Your task to perform on an android device: set default search engine in the chrome app Image 0: 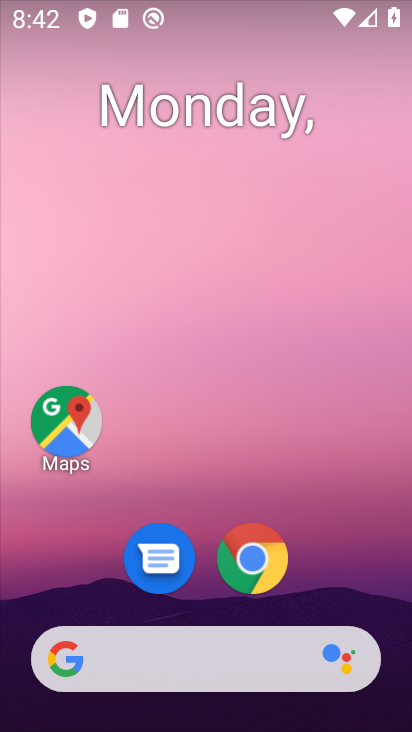
Step 0: click (261, 555)
Your task to perform on an android device: set default search engine in the chrome app Image 1: 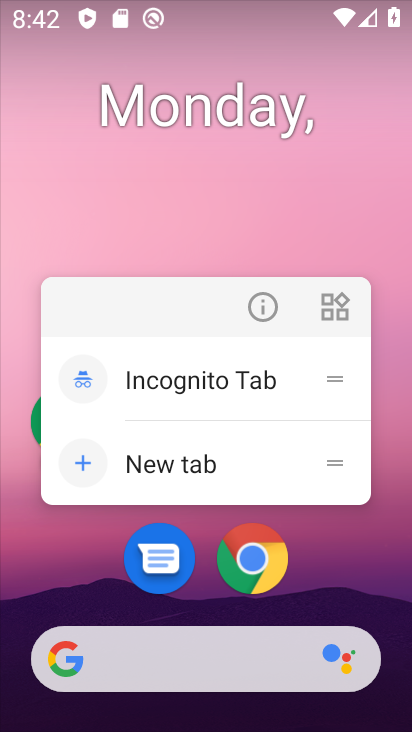
Step 1: click (255, 557)
Your task to perform on an android device: set default search engine in the chrome app Image 2: 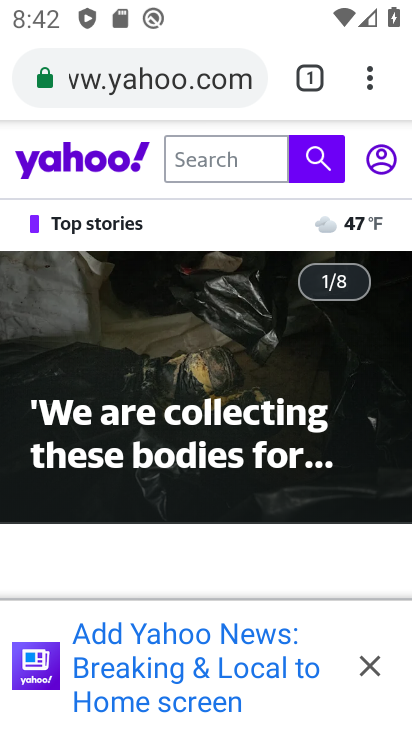
Step 2: drag from (368, 77) to (151, 634)
Your task to perform on an android device: set default search engine in the chrome app Image 3: 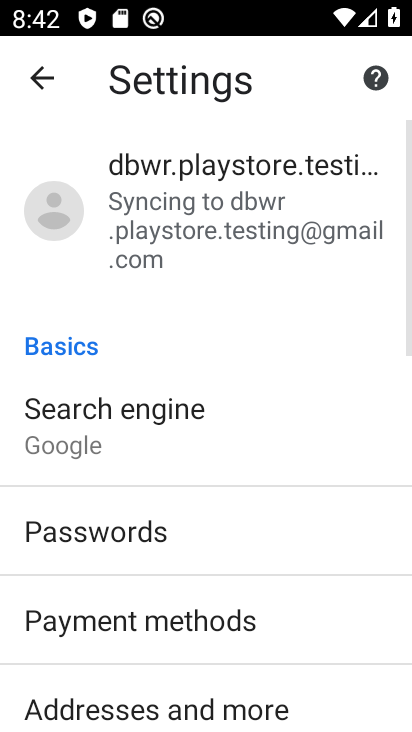
Step 3: click (137, 433)
Your task to perform on an android device: set default search engine in the chrome app Image 4: 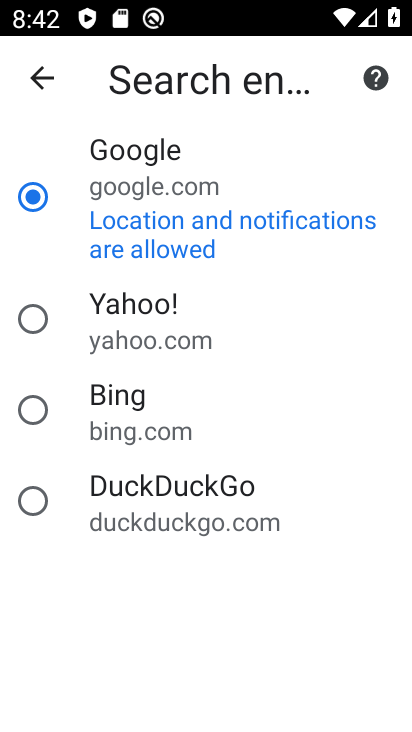
Step 4: task complete